Your task to perform on an android device: What is the recent news? Image 0: 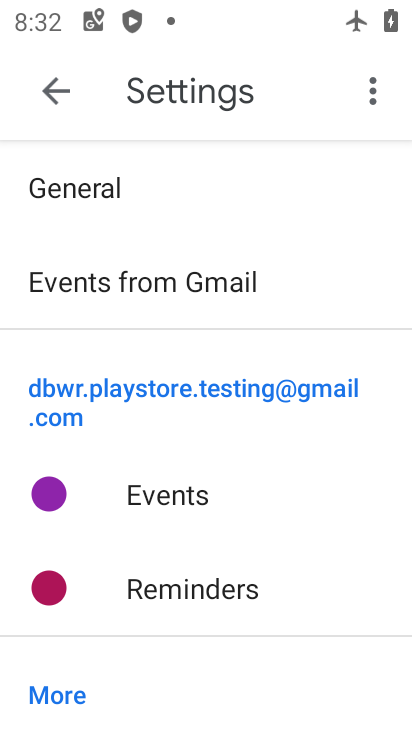
Step 0: press home button
Your task to perform on an android device: What is the recent news? Image 1: 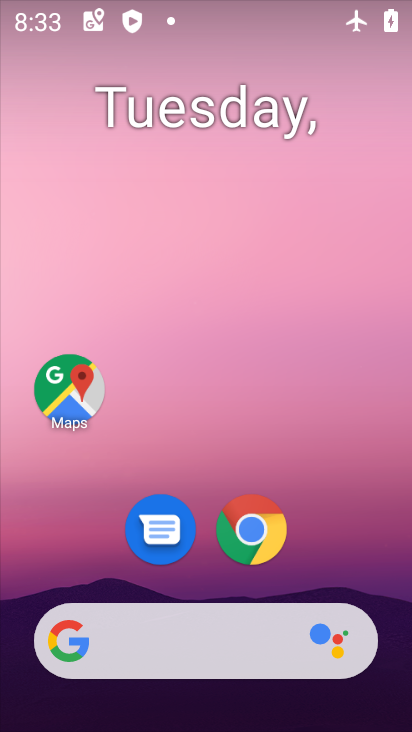
Step 1: drag from (206, 634) to (253, 213)
Your task to perform on an android device: What is the recent news? Image 2: 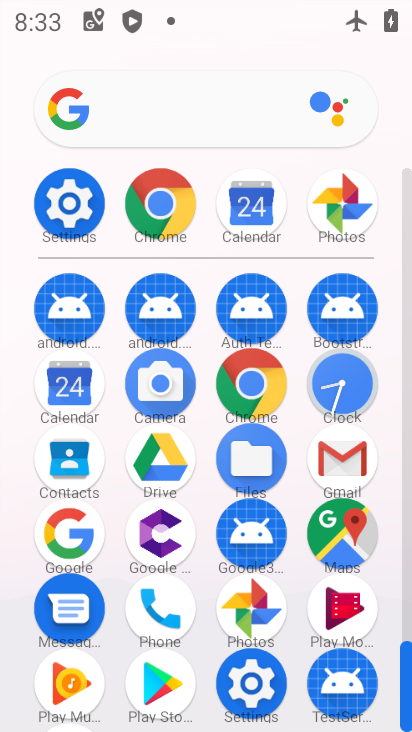
Step 2: click (64, 532)
Your task to perform on an android device: What is the recent news? Image 3: 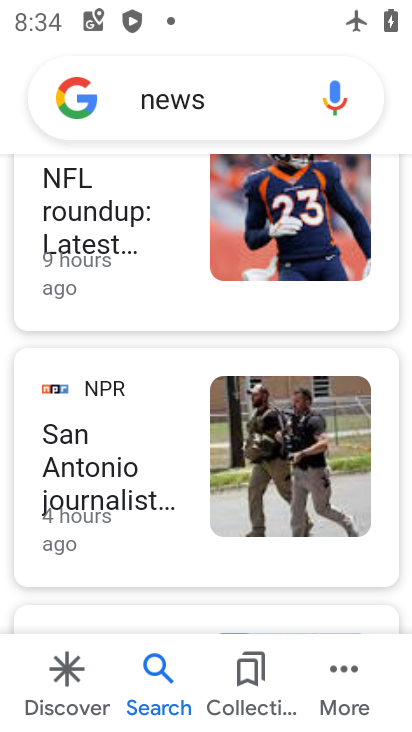
Step 3: task complete